Your task to perform on an android device: Show the shopping cart on costco. Add macbook pro 15 inch to the cart on costco, then select checkout. Image 0: 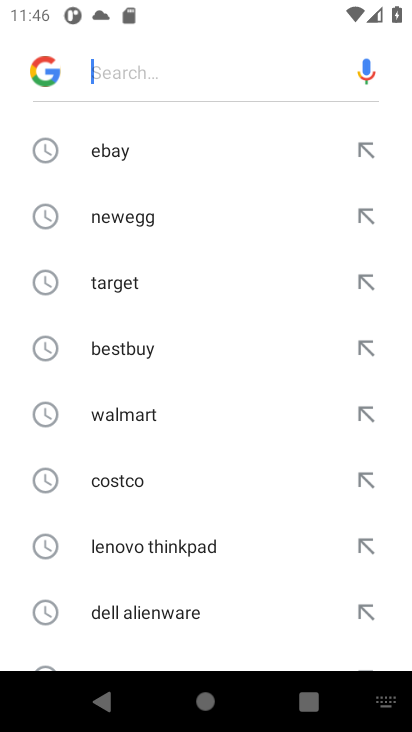
Step 0: press home button
Your task to perform on an android device: Show the shopping cart on costco. Add macbook pro 15 inch to the cart on costco, then select checkout. Image 1: 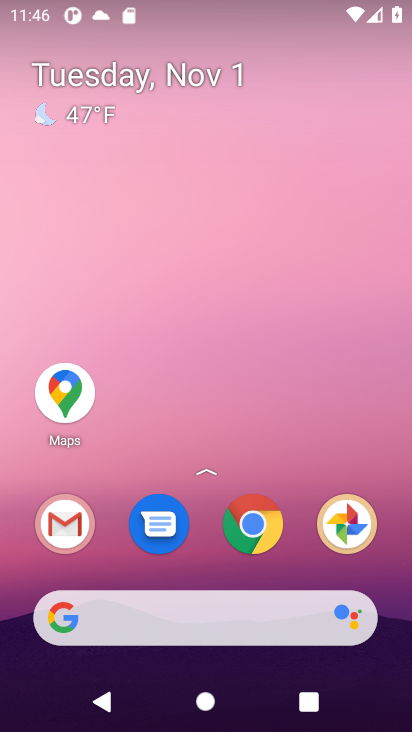
Step 1: click (92, 612)
Your task to perform on an android device: Show the shopping cart on costco. Add macbook pro 15 inch to the cart on costco, then select checkout. Image 2: 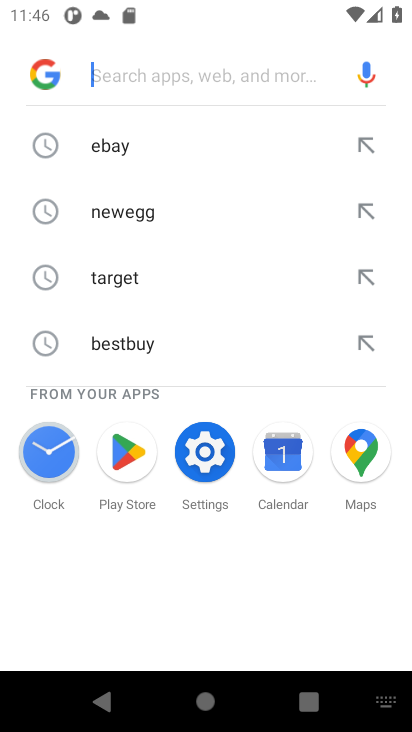
Step 2: type "costco"
Your task to perform on an android device: Show the shopping cart on costco. Add macbook pro 15 inch to the cart on costco, then select checkout. Image 3: 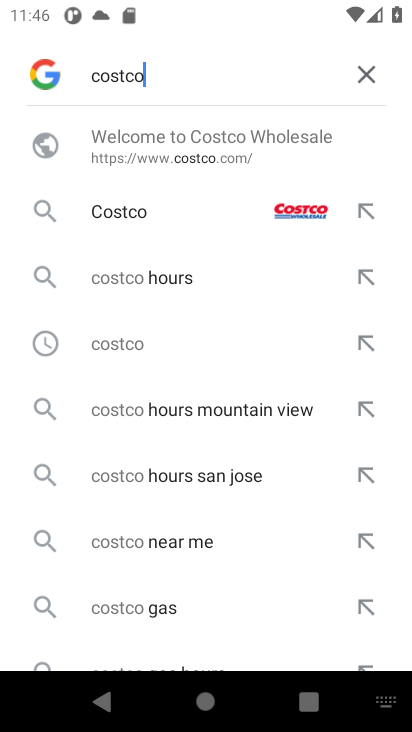
Step 3: press enter
Your task to perform on an android device: Show the shopping cart on costco. Add macbook pro 15 inch to the cart on costco, then select checkout. Image 4: 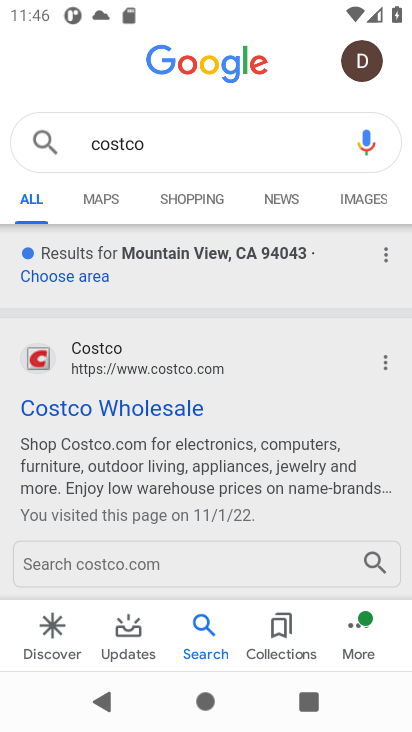
Step 4: click (90, 399)
Your task to perform on an android device: Show the shopping cart on costco. Add macbook pro 15 inch to the cart on costco, then select checkout. Image 5: 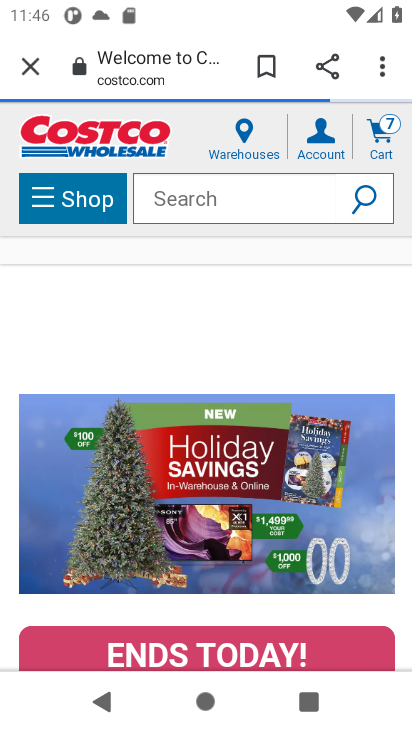
Step 5: click (375, 138)
Your task to perform on an android device: Show the shopping cart on costco. Add macbook pro 15 inch to the cart on costco, then select checkout. Image 6: 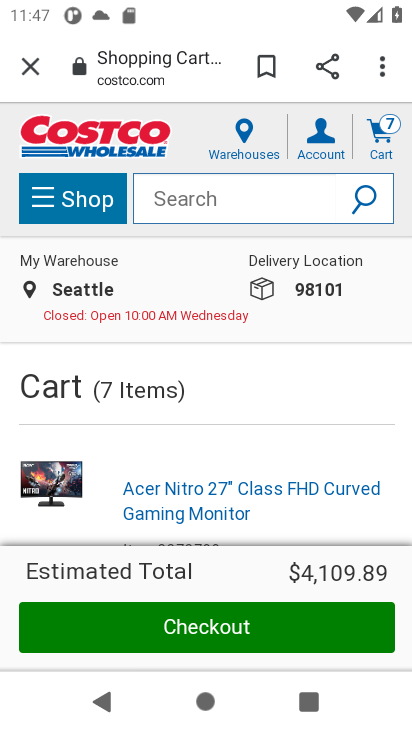
Step 6: click (181, 197)
Your task to perform on an android device: Show the shopping cart on costco. Add macbook pro 15 inch to the cart on costco, then select checkout. Image 7: 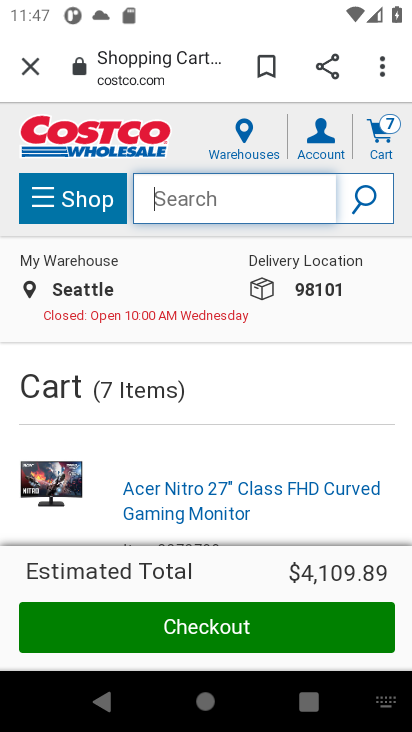
Step 7: type "macbook pro 15 inch"
Your task to perform on an android device: Show the shopping cart on costco. Add macbook pro 15 inch to the cart on costco, then select checkout. Image 8: 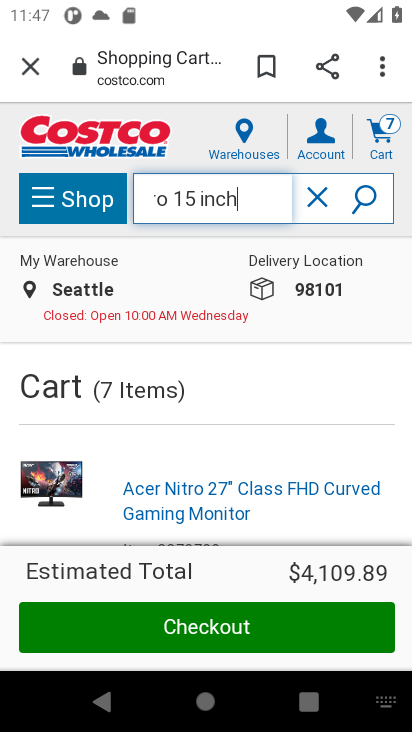
Step 8: press enter
Your task to perform on an android device: Show the shopping cart on costco. Add macbook pro 15 inch to the cart on costco, then select checkout. Image 9: 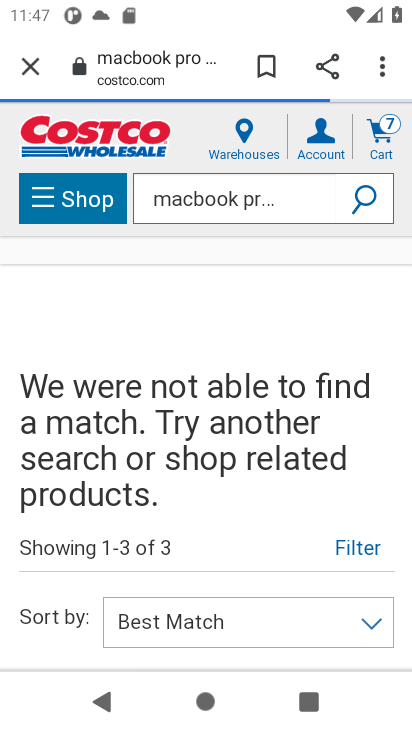
Step 9: task complete